Your task to perform on an android device: Open Chrome and go to the settings page Image 0: 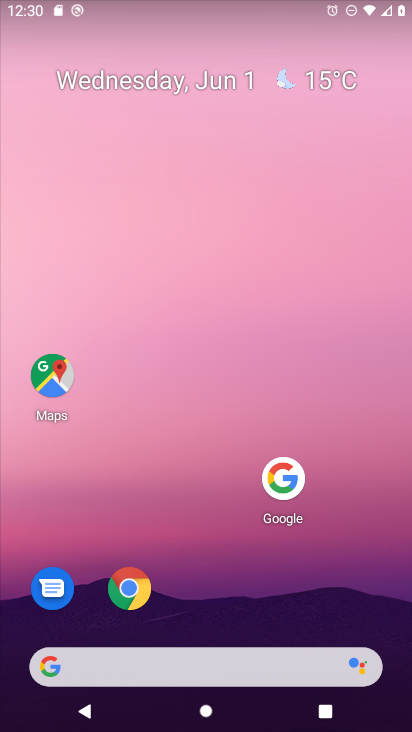
Step 0: press home button
Your task to perform on an android device: Open Chrome and go to the settings page Image 1: 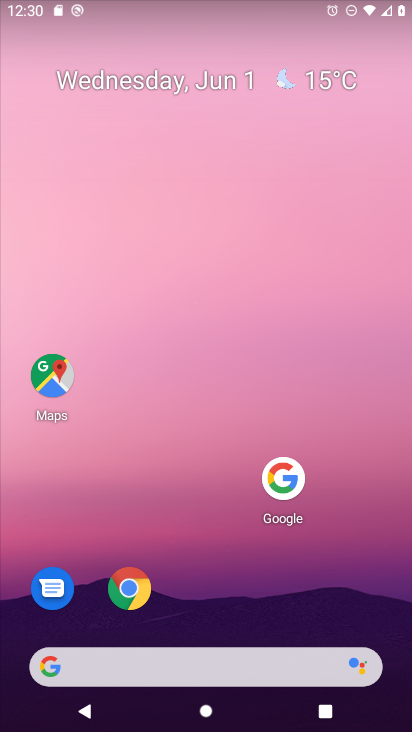
Step 1: click (131, 587)
Your task to perform on an android device: Open Chrome and go to the settings page Image 2: 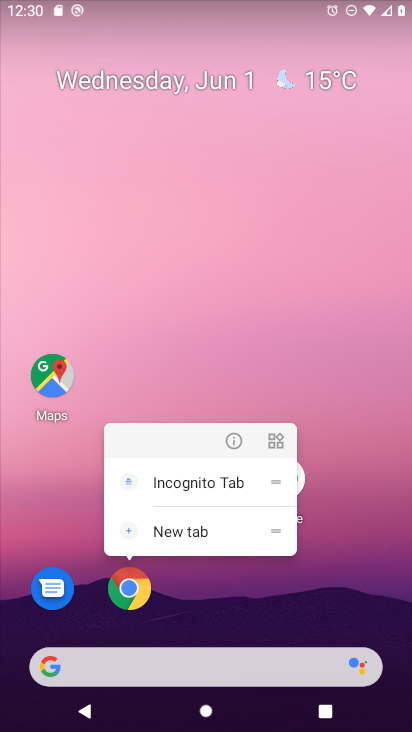
Step 2: click (129, 591)
Your task to perform on an android device: Open Chrome and go to the settings page Image 3: 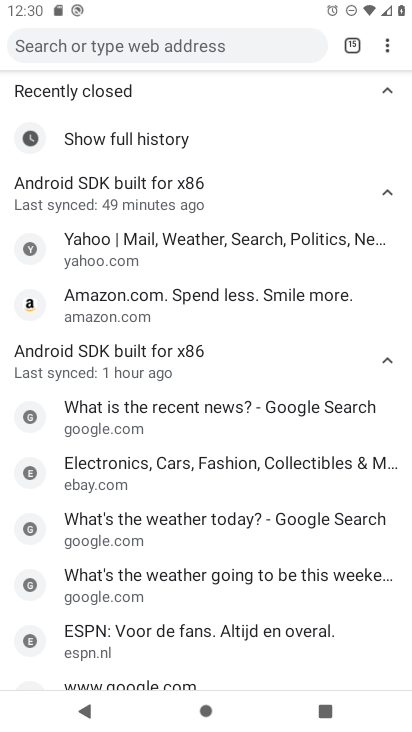
Step 3: task complete